Your task to perform on an android device: Clear the shopping cart on costco. Add apple airpods pro to the cart on costco, then select checkout. Image 0: 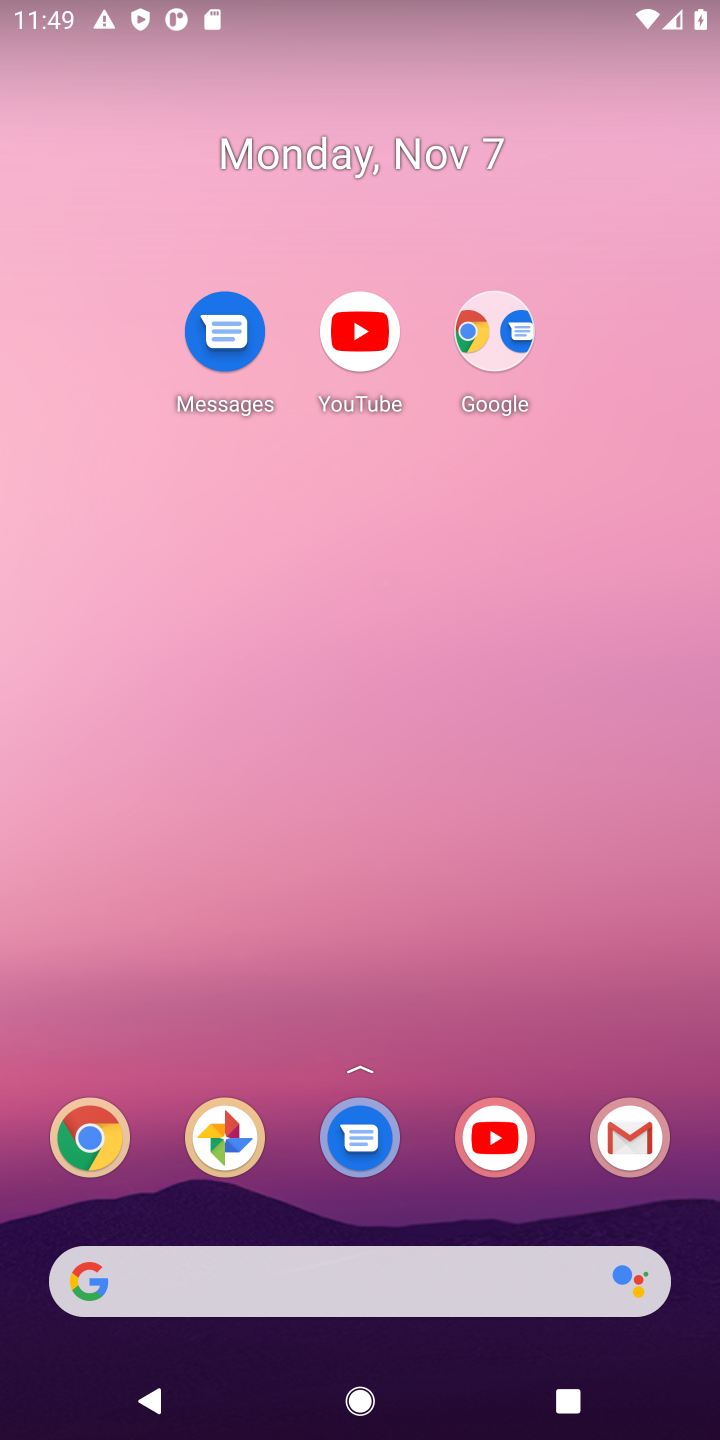
Step 0: press home button
Your task to perform on an android device: Clear the shopping cart on costco. Add apple airpods pro to the cart on costco, then select checkout. Image 1: 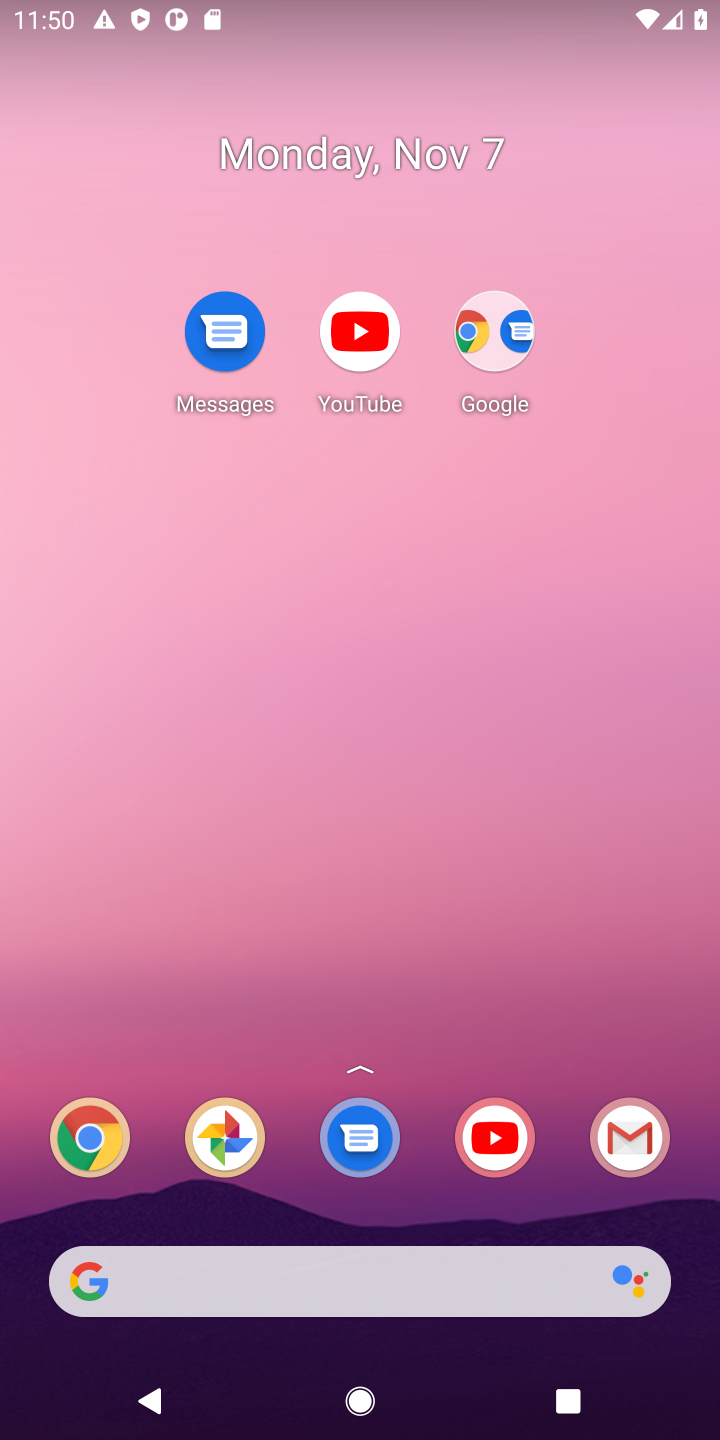
Step 1: drag from (422, 1210) to (440, 146)
Your task to perform on an android device: Clear the shopping cart on costco. Add apple airpods pro to the cart on costco, then select checkout. Image 2: 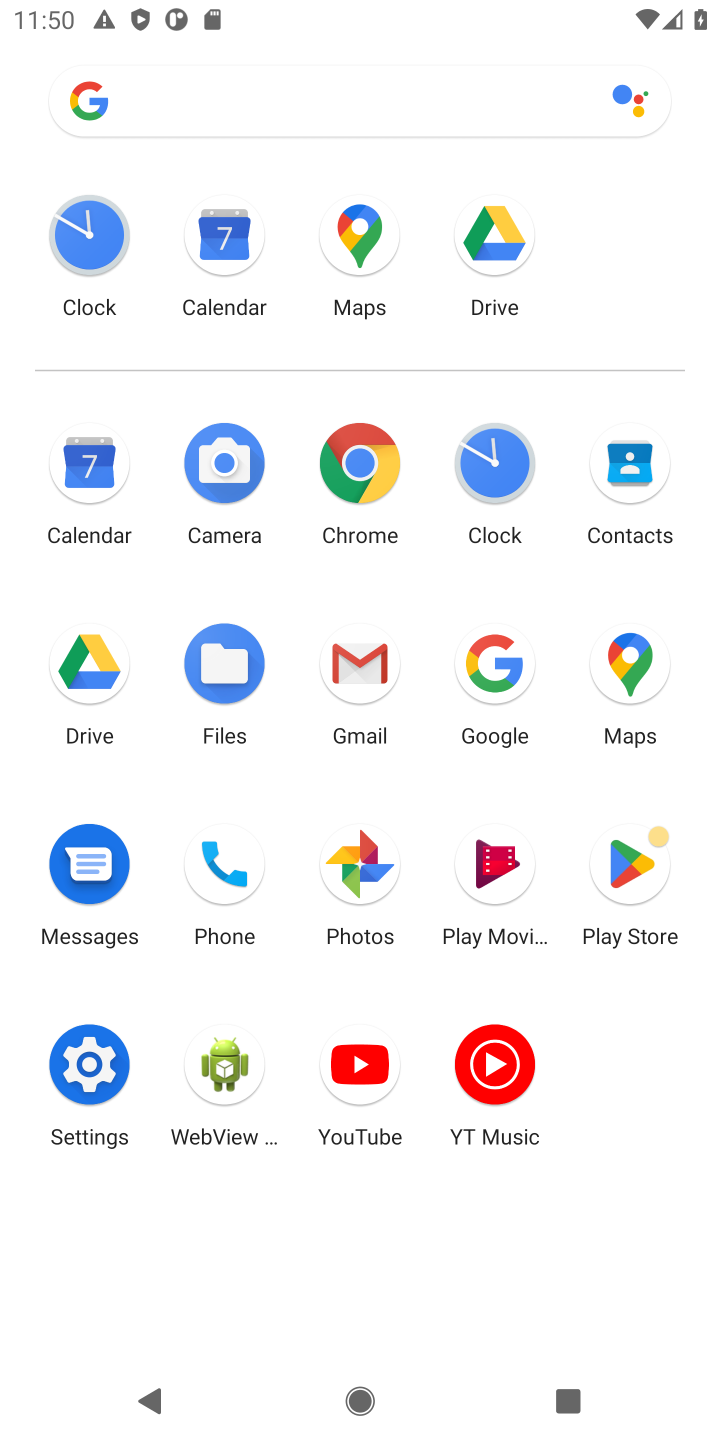
Step 2: click (348, 467)
Your task to perform on an android device: Clear the shopping cart on costco. Add apple airpods pro to the cart on costco, then select checkout. Image 3: 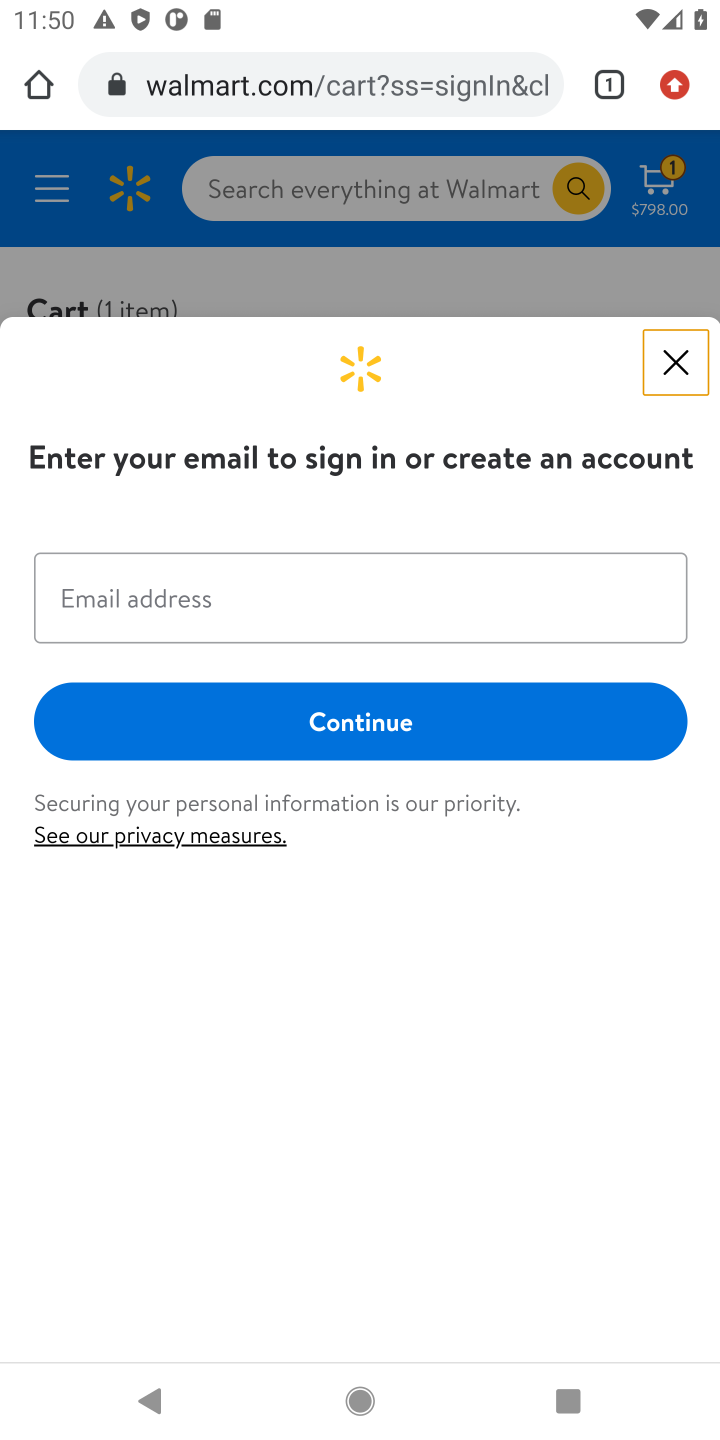
Step 3: click (262, 79)
Your task to perform on an android device: Clear the shopping cart on costco. Add apple airpods pro to the cart on costco, then select checkout. Image 4: 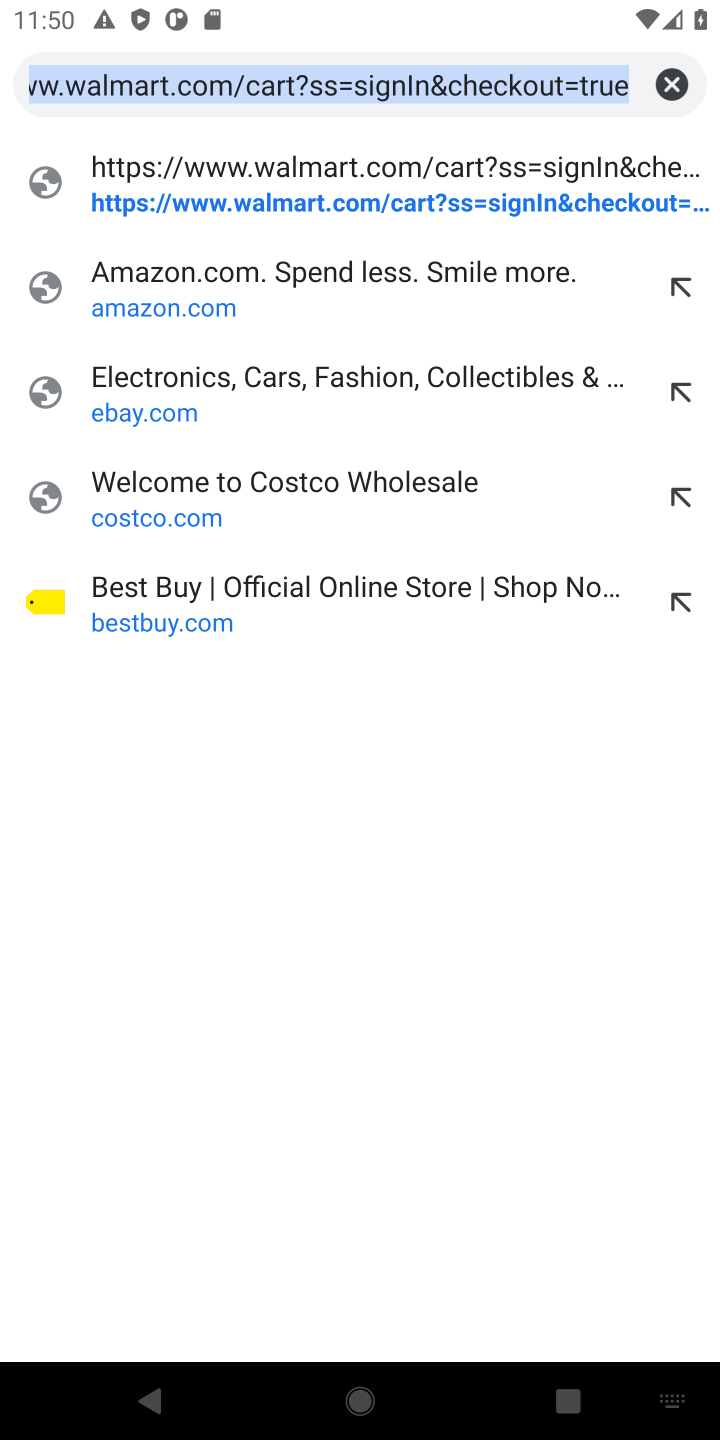
Step 4: type "costco.com"
Your task to perform on an android device: Clear the shopping cart on costco. Add apple airpods pro to the cart on costco, then select checkout. Image 5: 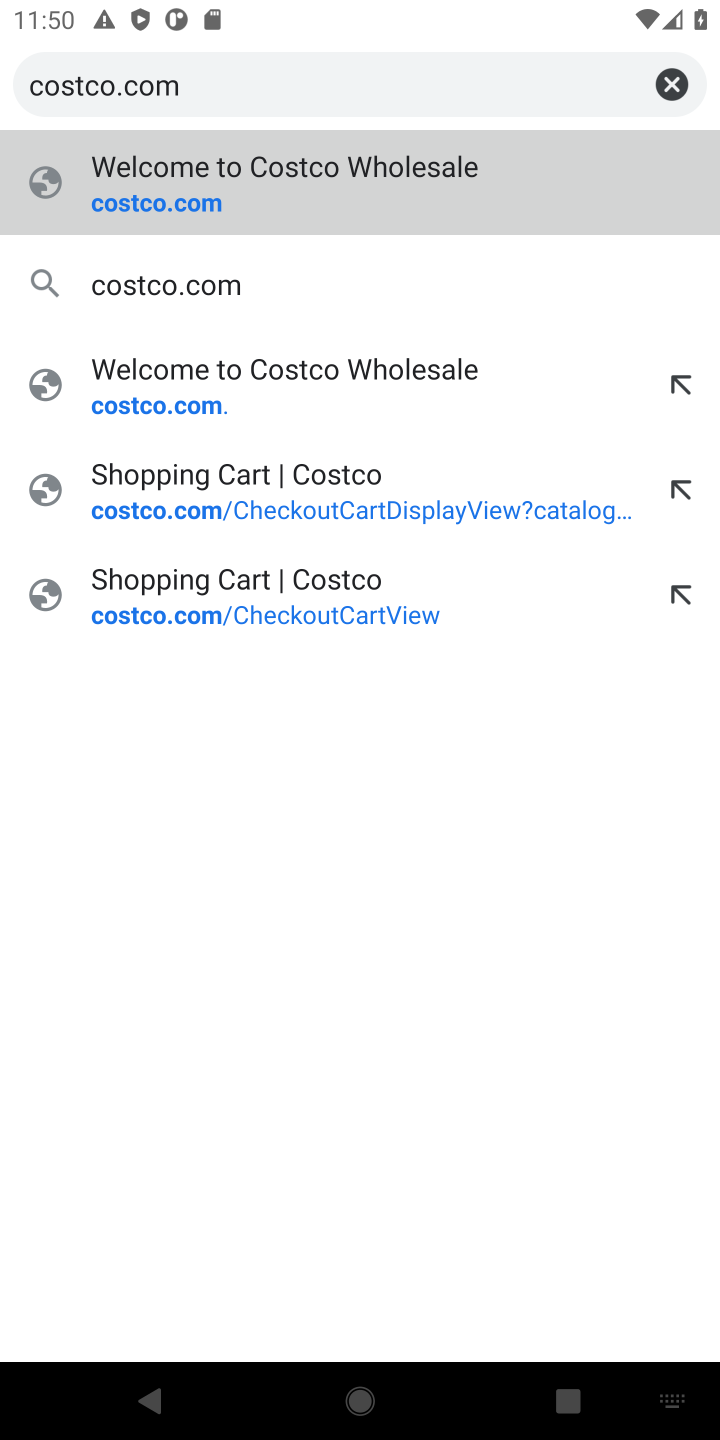
Step 5: press enter
Your task to perform on an android device: Clear the shopping cart on costco. Add apple airpods pro to the cart on costco, then select checkout. Image 6: 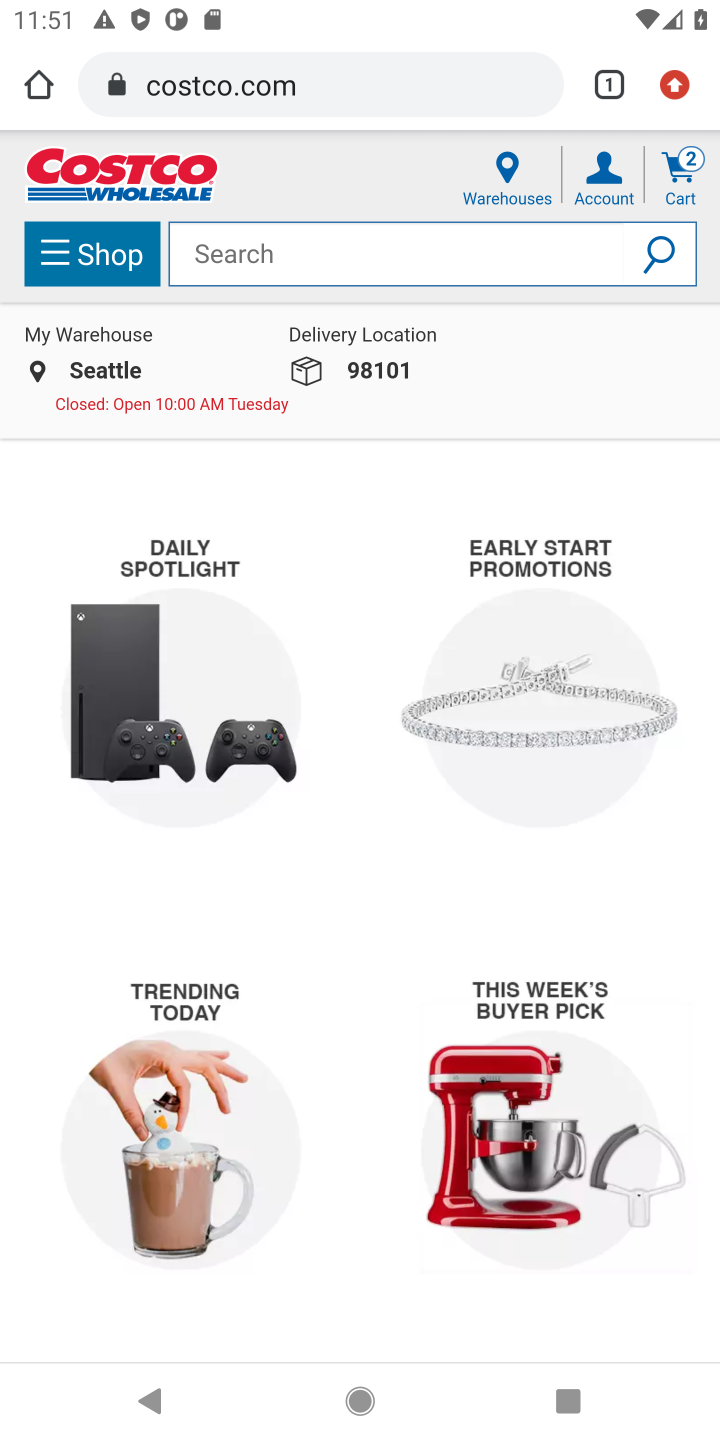
Step 6: click (388, 255)
Your task to perform on an android device: Clear the shopping cart on costco. Add apple airpods pro to the cart on costco, then select checkout. Image 7: 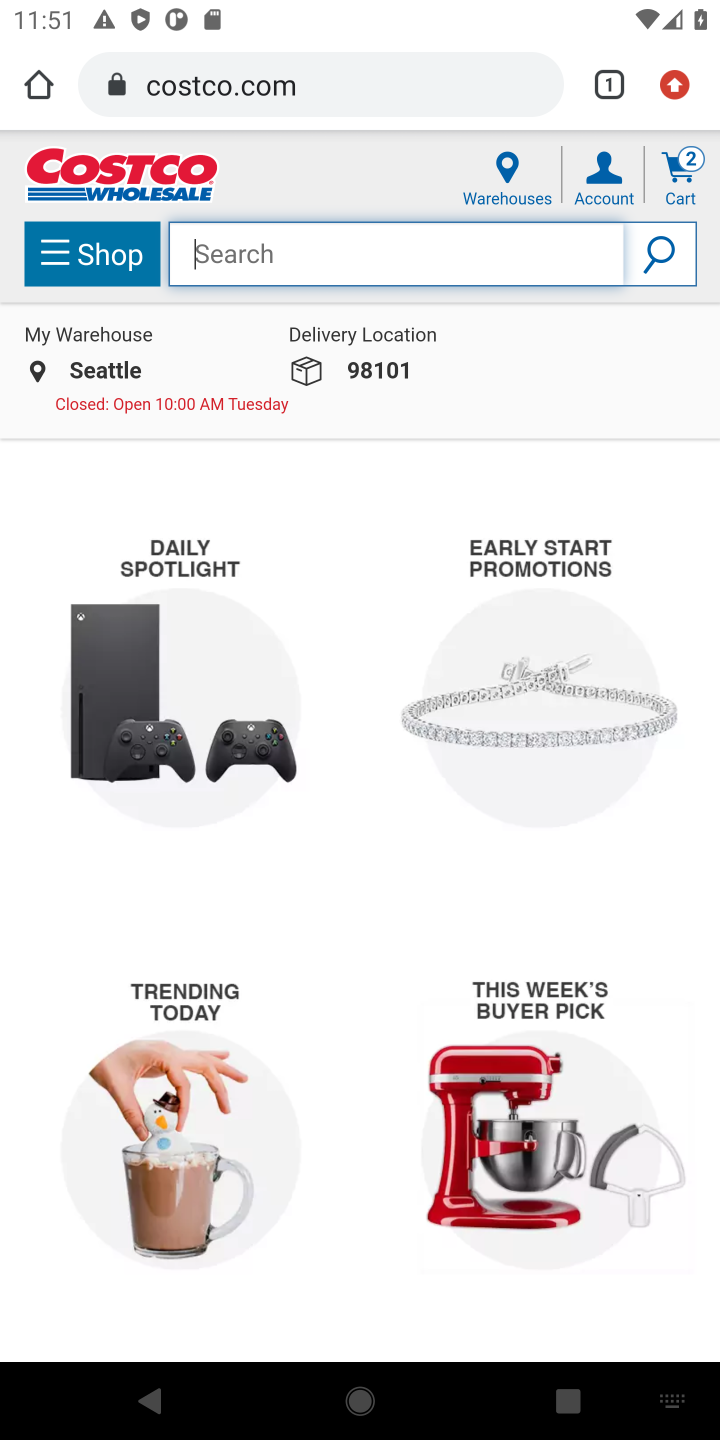
Step 7: click (687, 168)
Your task to perform on an android device: Clear the shopping cart on costco. Add apple airpods pro to the cart on costco, then select checkout. Image 8: 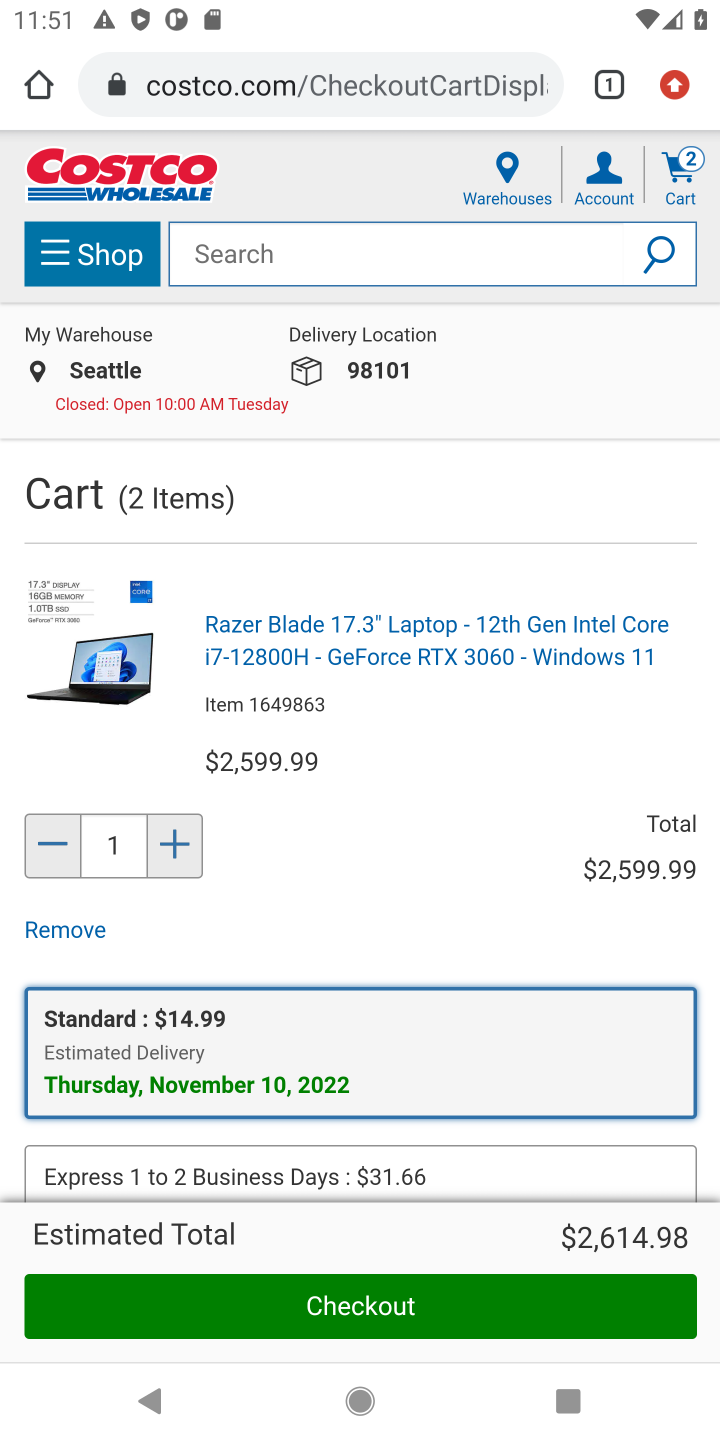
Step 8: click (66, 928)
Your task to perform on an android device: Clear the shopping cart on costco. Add apple airpods pro to the cart on costco, then select checkout. Image 9: 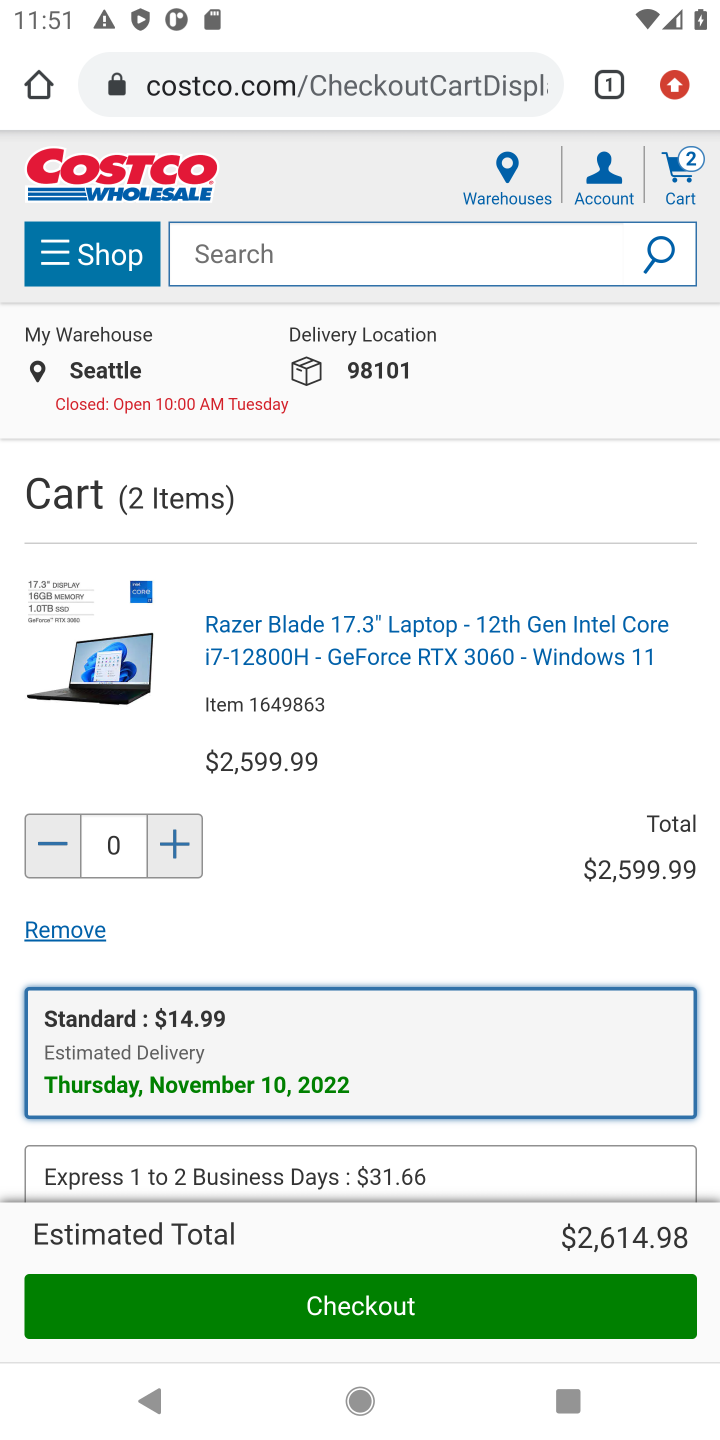
Step 9: task complete